Your task to perform on an android device: change alarm snooze length Image 0: 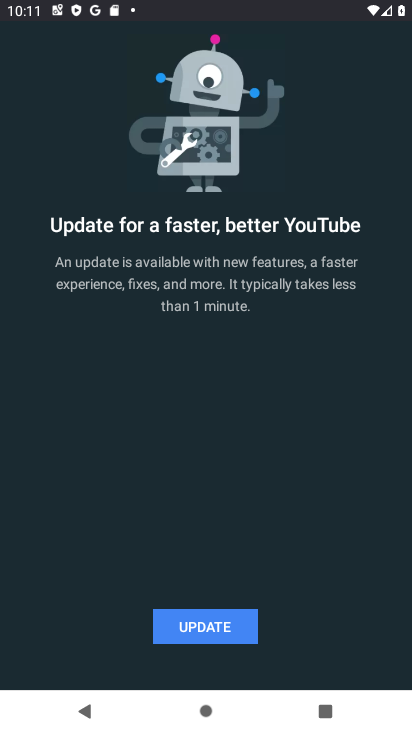
Step 0: press home button
Your task to perform on an android device: change alarm snooze length Image 1: 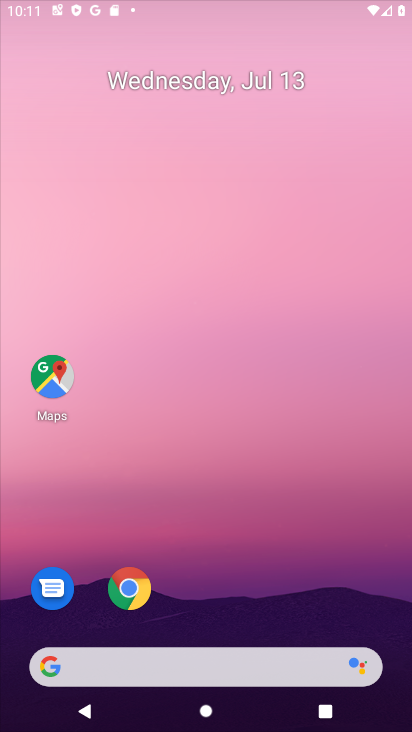
Step 1: drag from (217, 611) to (225, 55)
Your task to perform on an android device: change alarm snooze length Image 2: 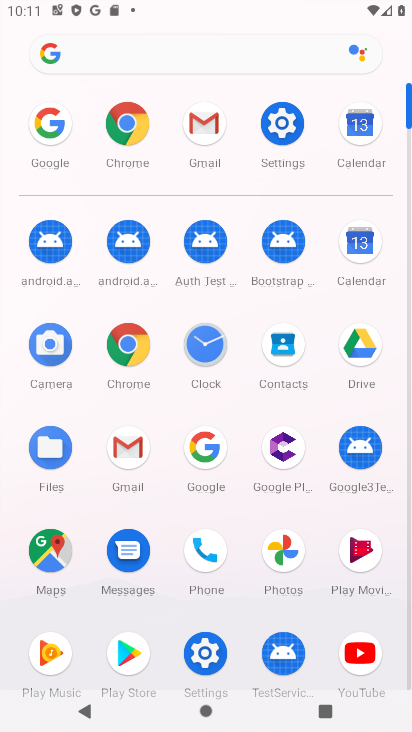
Step 2: click (202, 343)
Your task to perform on an android device: change alarm snooze length Image 3: 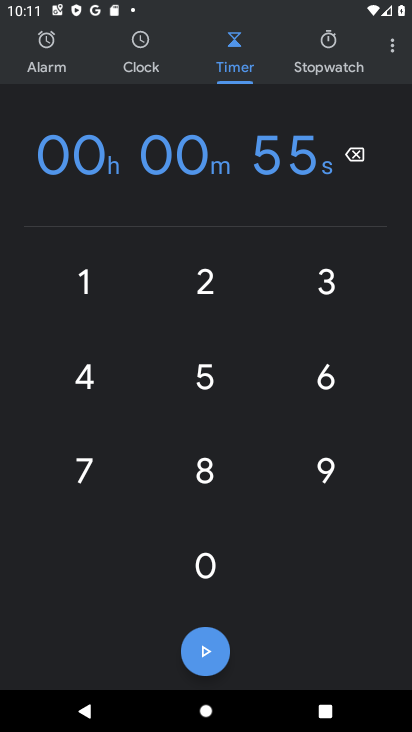
Step 3: click (388, 44)
Your task to perform on an android device: change alarm snooze length Image 4: 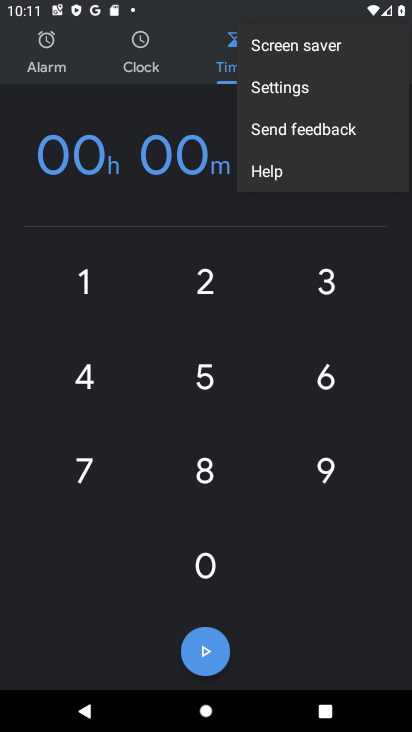
Step 4: click (288, 90)
Your task to perform on an android device: change alarm snooze length Image 5: 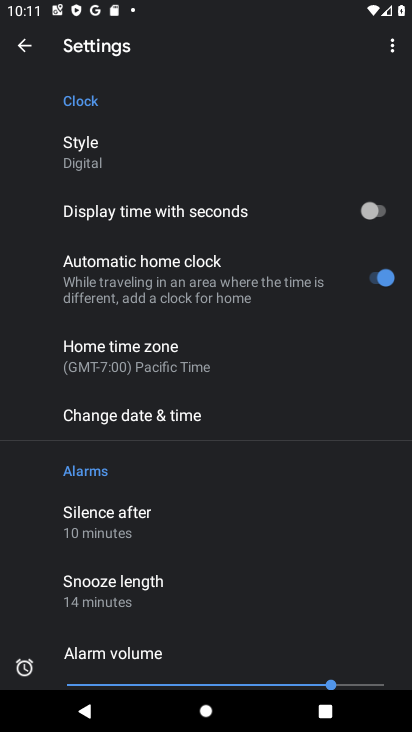
Step 5: click (143, 597)
Your task to perform on an android device: change alarm snooze length Image 6: 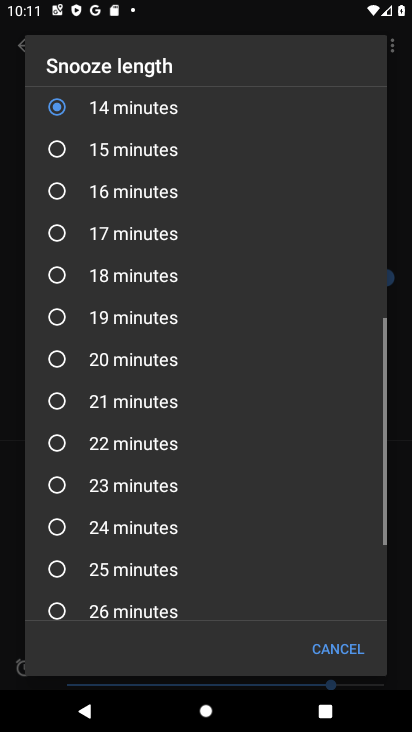
Step 6: click (59, 229)
Your task to perform on an android device: change alarm snooze length Image 7: 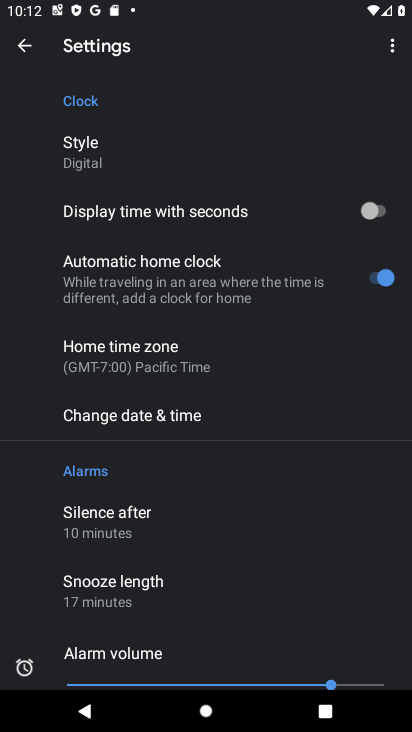
Step 7: task complete